Your task to perform on an android device: Open Reddit.com Image 0: 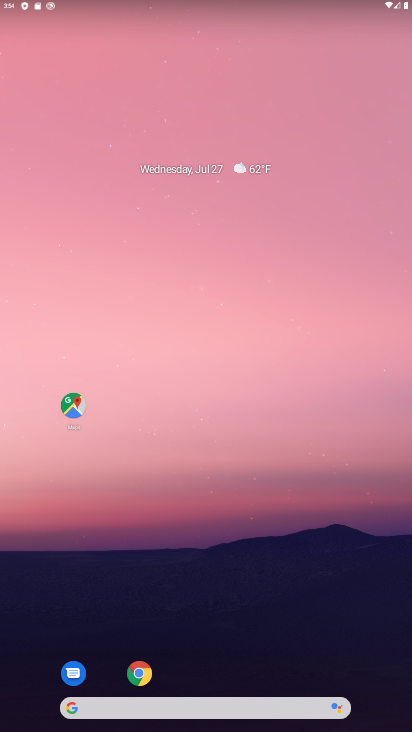
Step 0: click (227, 699)
Your task to perform on an android device: Open Reddit.com Image 1: 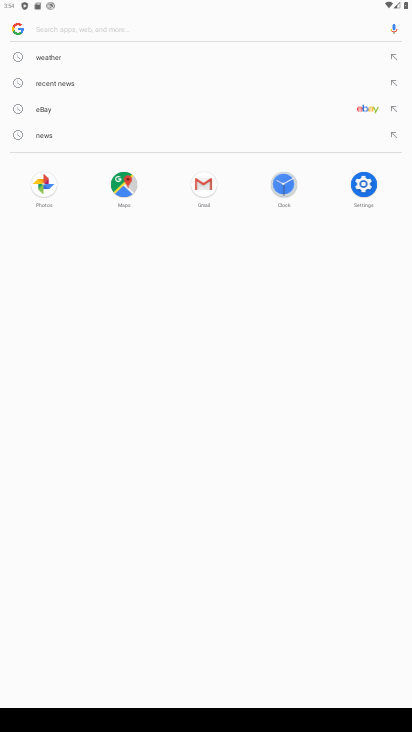
Step 1: click (130, 25)
Your task to perform on an android device: Open Reddit.com Image 2: 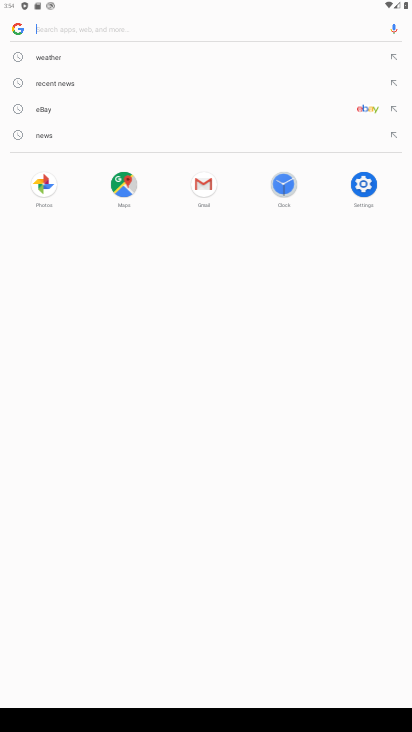
Step 2: type "Reddit.com"
Your task to perform on an android device: Open Reddit.com Image 3: 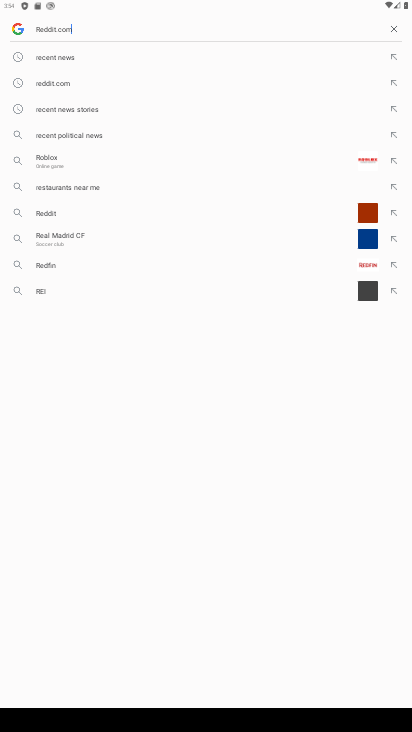
Step 3: type ""
Your task to perform on an android device: Open Reddit.com Image 4: 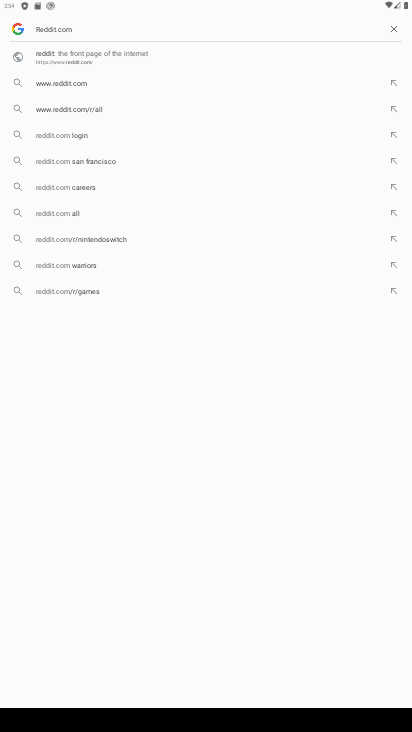
Step 4: click (99, 60)
Your task to perform on an android device: Open Reddit.com Image 5: 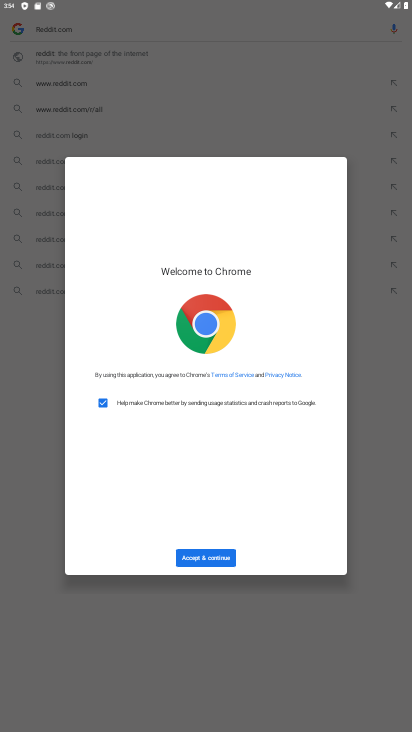
Step 5: click (220, 551)
Your task to perform on an android device: Open Reddit.com Image 6: 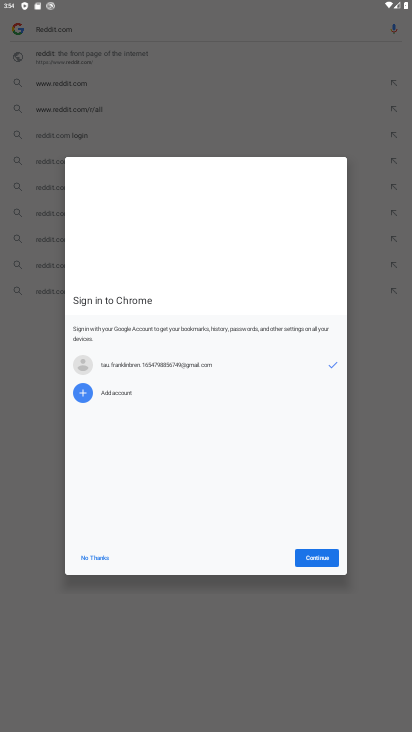
Step 6: click (95, 549)
Your task to perform on an android device: Open Reddit.com Image 7: 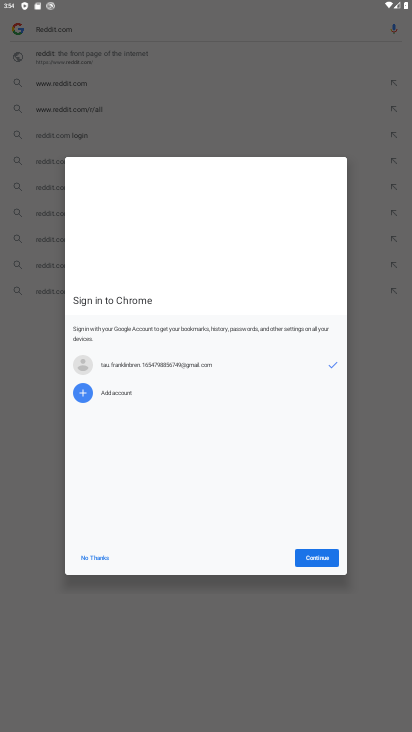
Step 7: click (94, 555)
Your task to perform on an android device: Open Reddit.com Image 8: 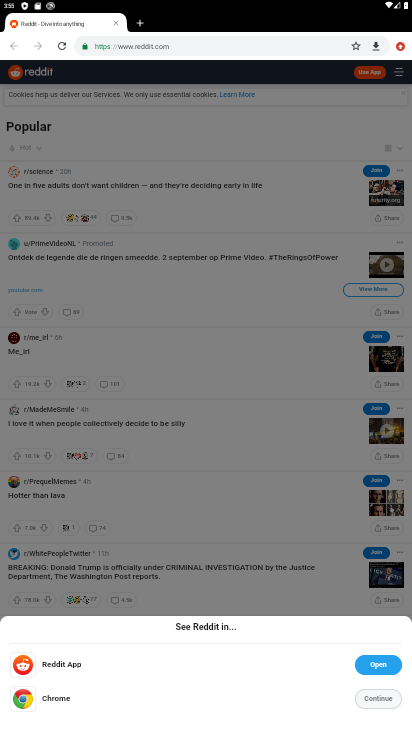
Step 8: task complete